Your task to perform on an android device: turn on notifications settings in the gmail app Image 0: 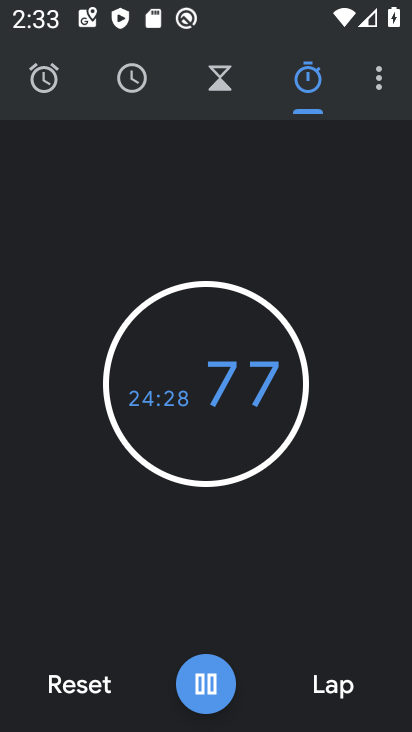
Step 0: press home button
Your task to perform on an android device: turn on notifications settings in the gmail app Image 1: 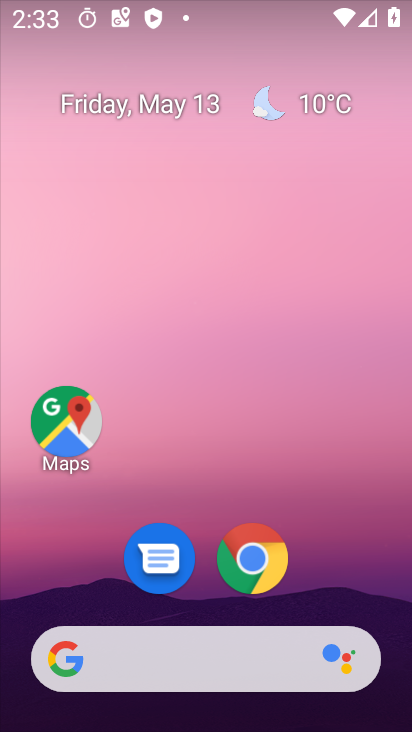
Step 1: drag from (202, 602) to (266, 147)
Your task to perform on an android device: turn on notifications settings in the gmail app Image 2: 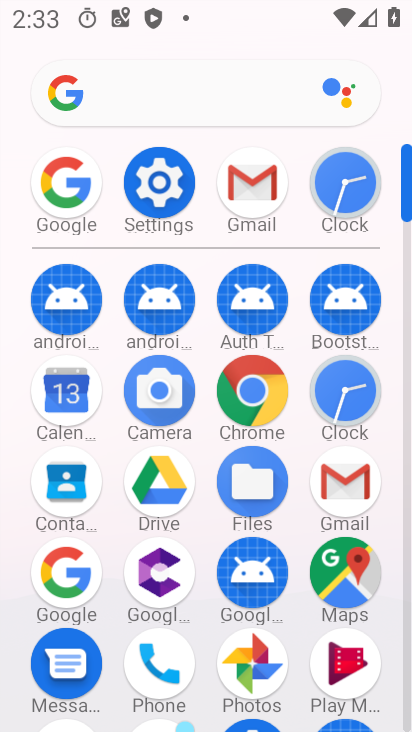
Step 2: click (349, 476)
Your task to perform on an android device: turn on notifications settings in the gmail app Image 3: 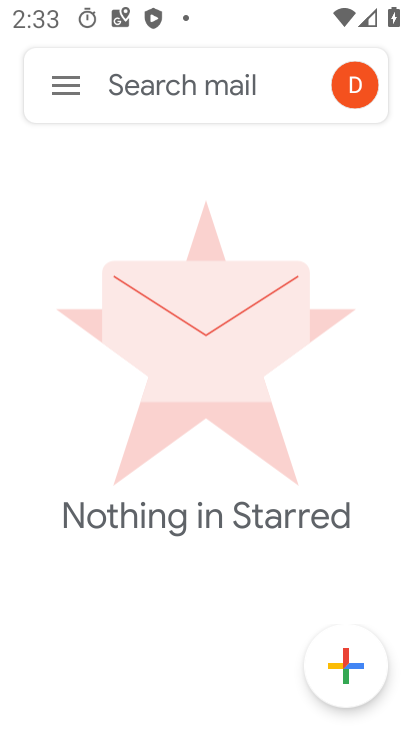
Step 3: click (73, 86)
Your task to perform on an android device: turn on notifications settings in the gmail app Image 4: 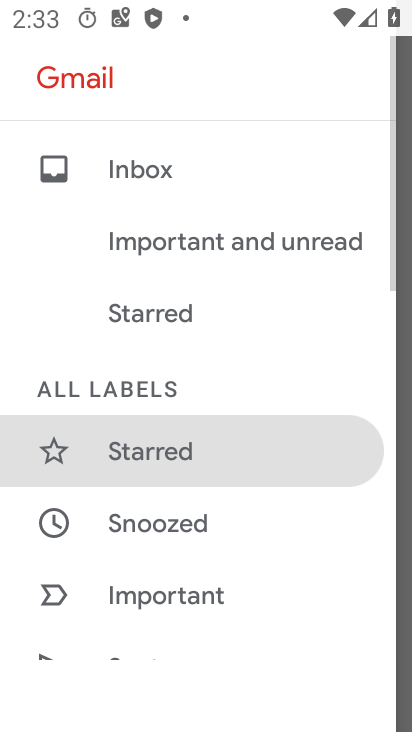
Step 4: drag from (186, 600) to (215, 323)
Your task to perform on an android device: turn on notifications settings in the gmail app Image 5: 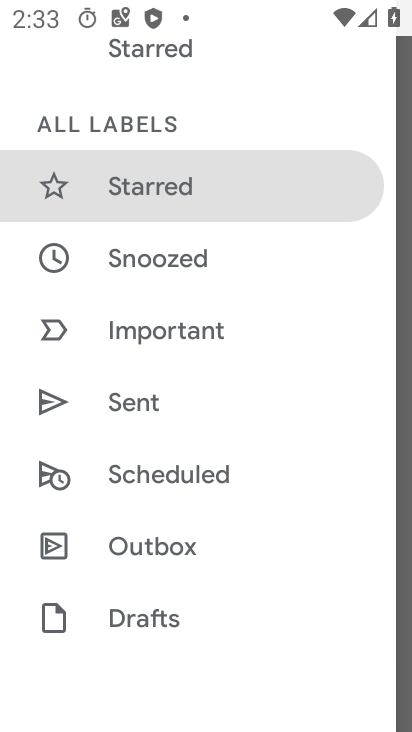
Step 5: drag from (203, 552) to (209, 380)
Your task to perform on an android device: turn on notifications settings in the gmail app Image 6: 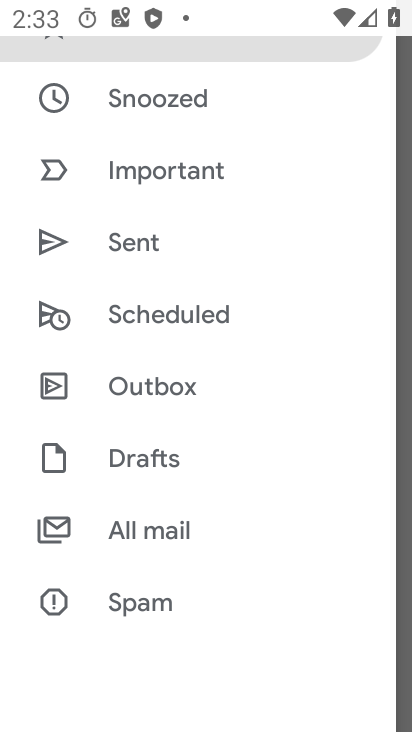
Step 6: drag from (153, 551) to (223, 281)
Your task to perform on an android device: turn on notifications settings in the gmail app Image 7: 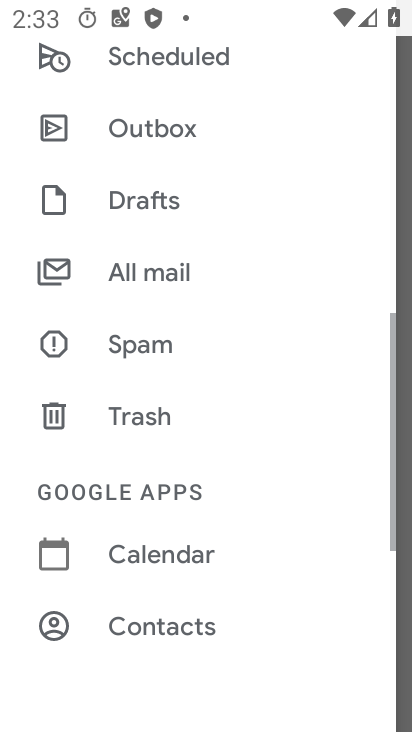
Step 7: drag from (161, 624) to (199, 412)
Your task to perform on an android device: turn on notifications settings in the gmail app Image 8: 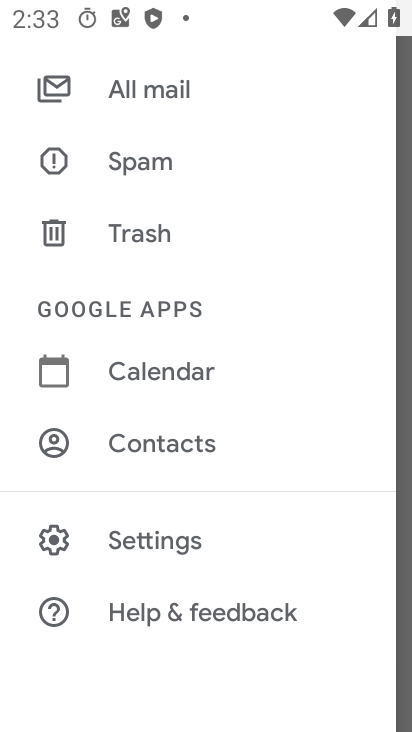
Step 8: click (149, 544)
Your task to perform on an android device: turn on notifications settings in the gmail app Image 9: 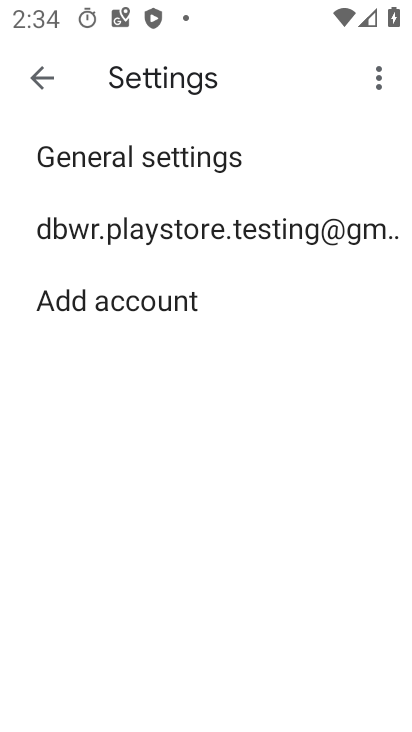
Step 9: click (190, 240)
Your task to perform on an android device: turn on notifications settings in the gmail app Image 10: 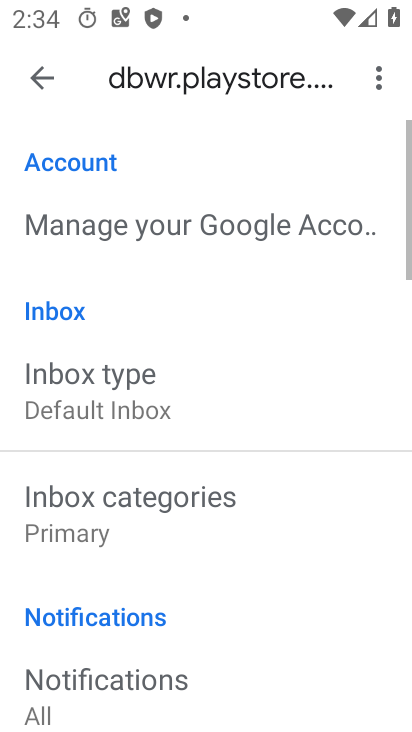
Step 10: drag from (252, 612) to (267, 370)
Your task to perform on an android device: turn on notifications settings in the gmail app Image 11: 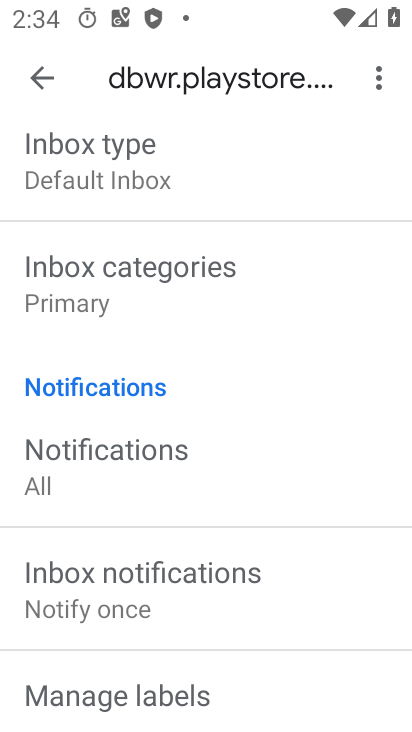
Step 11: drag from (155, 676) to (175, 392)
Your task to perform on an android device: turn on notifications settings in the gmail app Image 12: 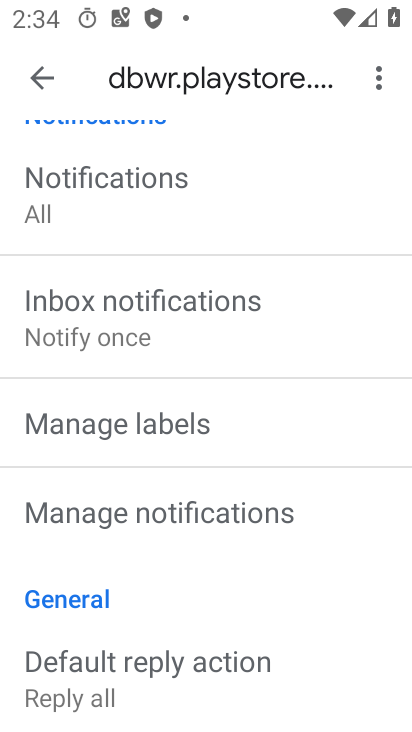
Step 12: click (180, 517)
Your task to perform on an android device: turn on notifications settings in the gmail app Image 13: 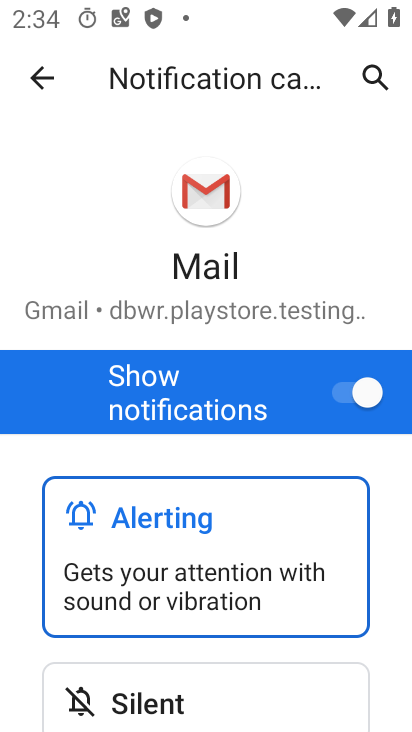
Step 13: task complete